Your task to perform on an android device: Open ESPN.com Image 0: 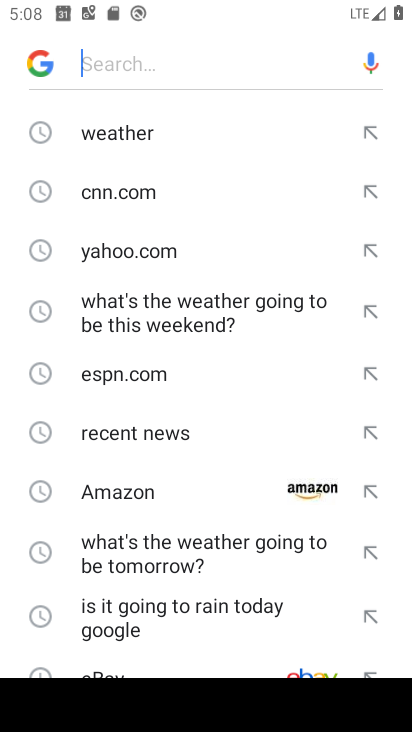
Step 0: press home button
Your task to perform on an android device: Open ESPN.com Image 1: 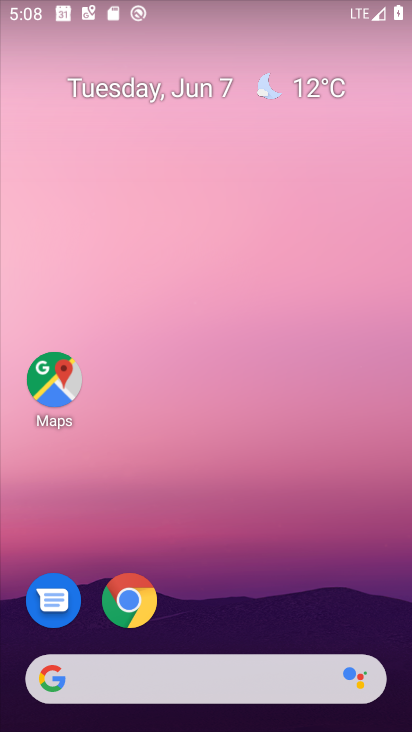
Step 1: click (133, 606)
Your task to perform on an android device: Open ESPN.com Image 2: 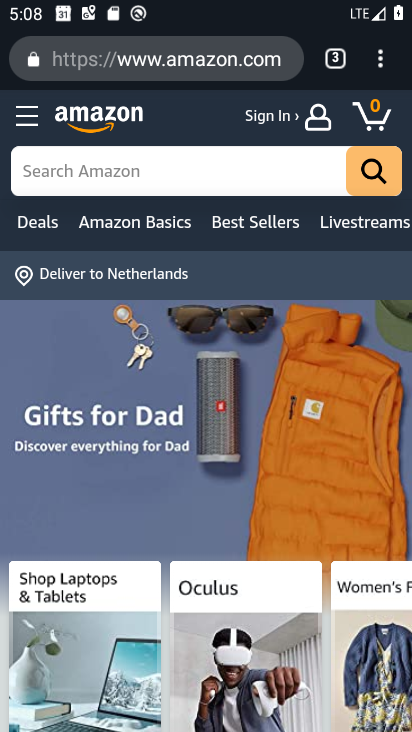
Step 2: click (194, 46)
Your task to perform on an android device: Open ESPN.com Image 3: 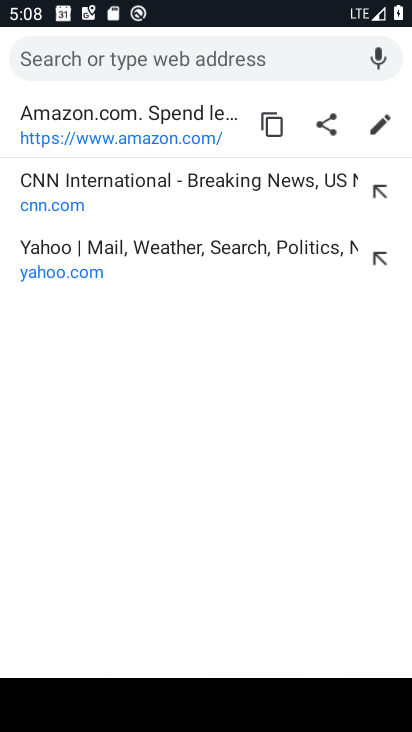
Step 3: type "espn.com"
Your task to perform on an android device: Open ESPN.com Image 4: 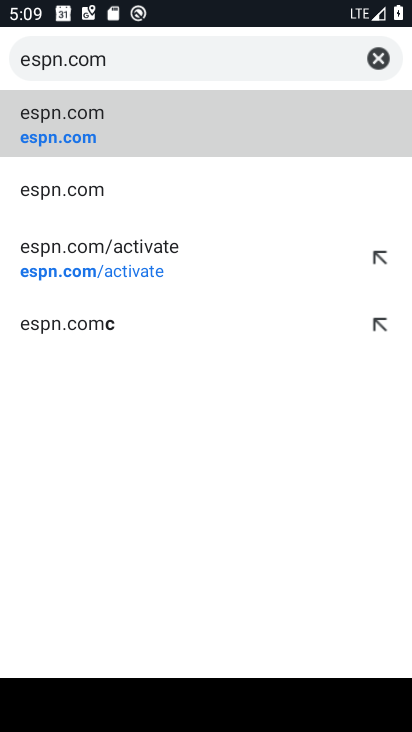
Step 4: click (69, 145)
Your task to perform on an android device: Open ESPN.com Image 5: 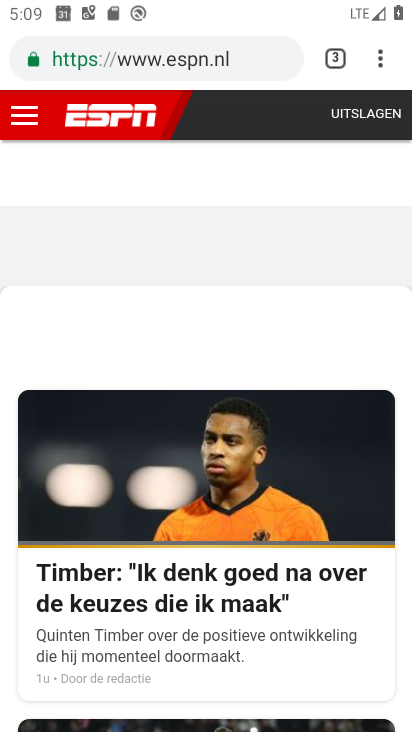
Step 5: task complete